Your task to perform on an android device: turn on location history Image 0: 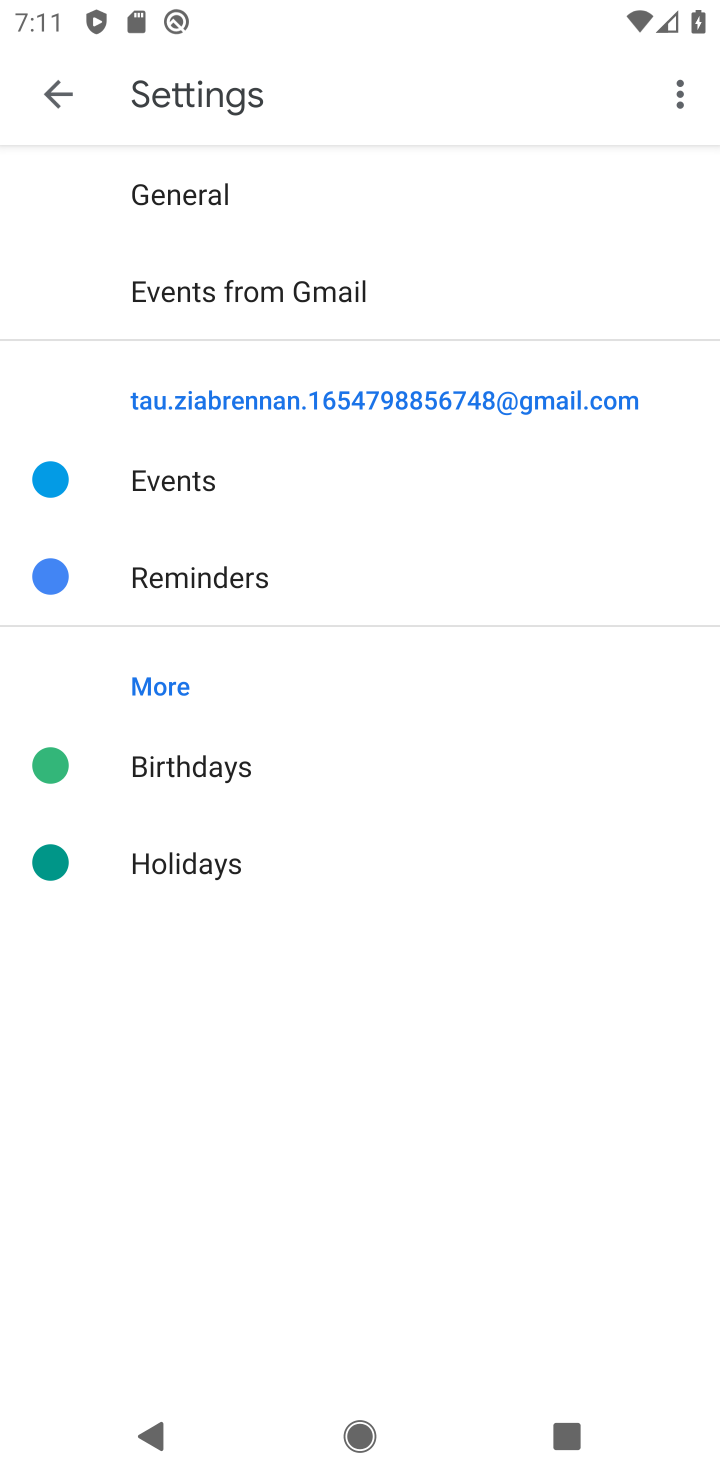
Step 0: press home button
Your task to perform on an android device: turn on location history Image 1: 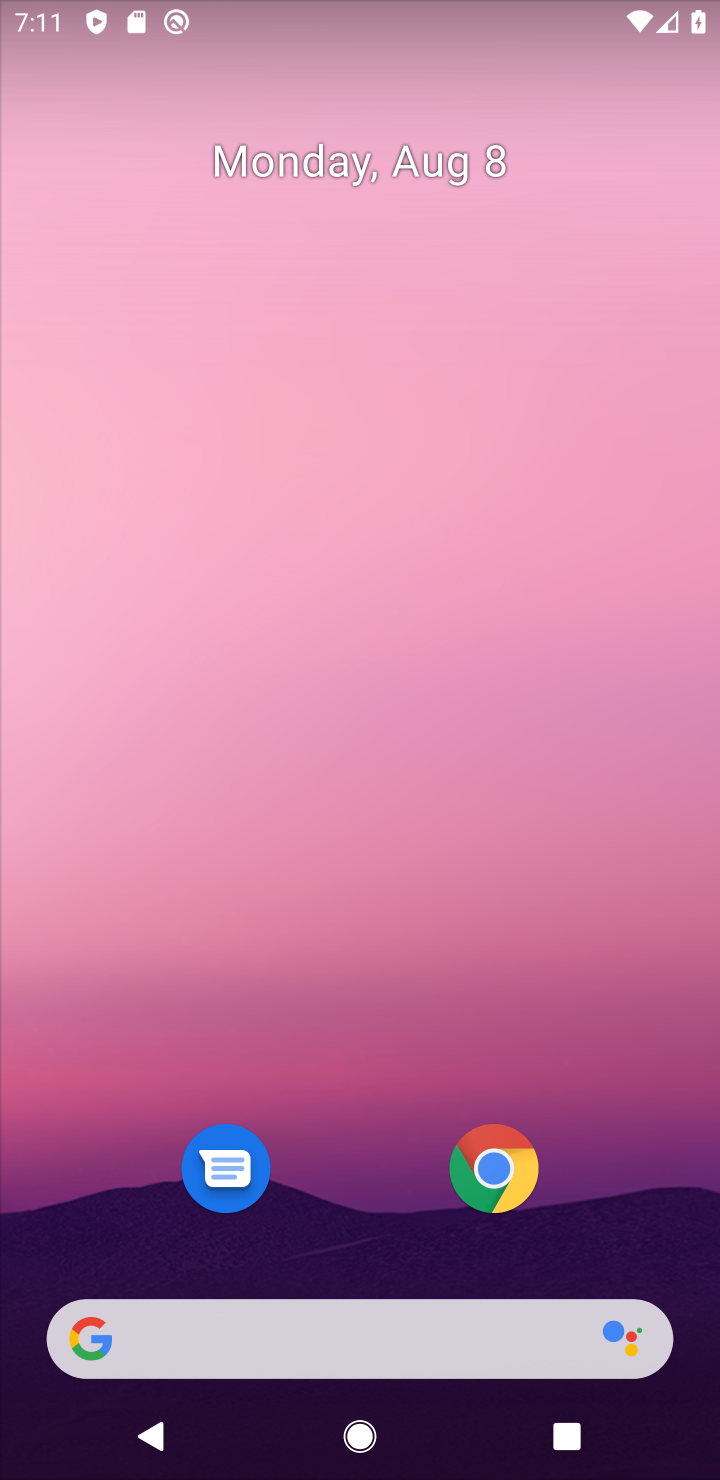
Step 1: drag from (644, 1263) to (480, 24)
Your task to perform on an android device: turn on location history Image 2: 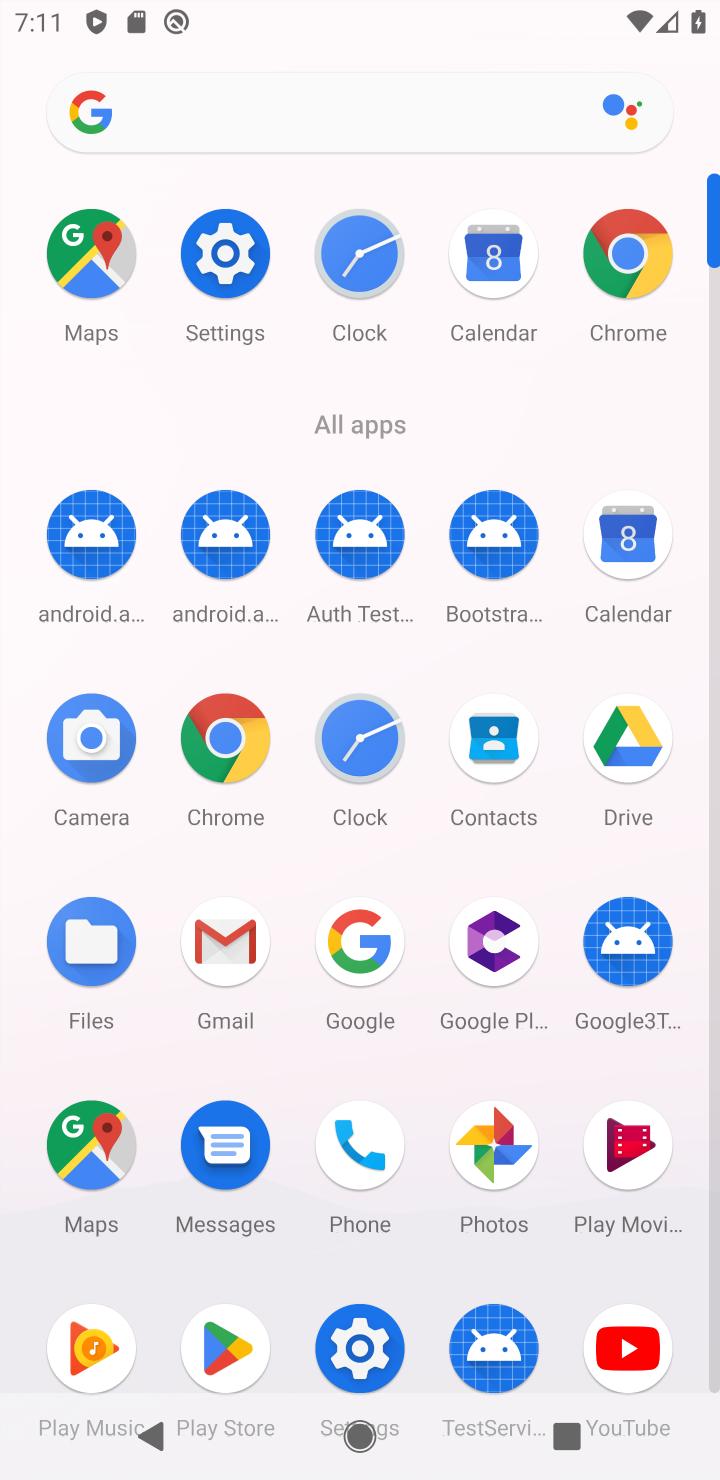
Step 2: click (347, 1334)
Your task to perform on an android device: turn on location history Image 3: 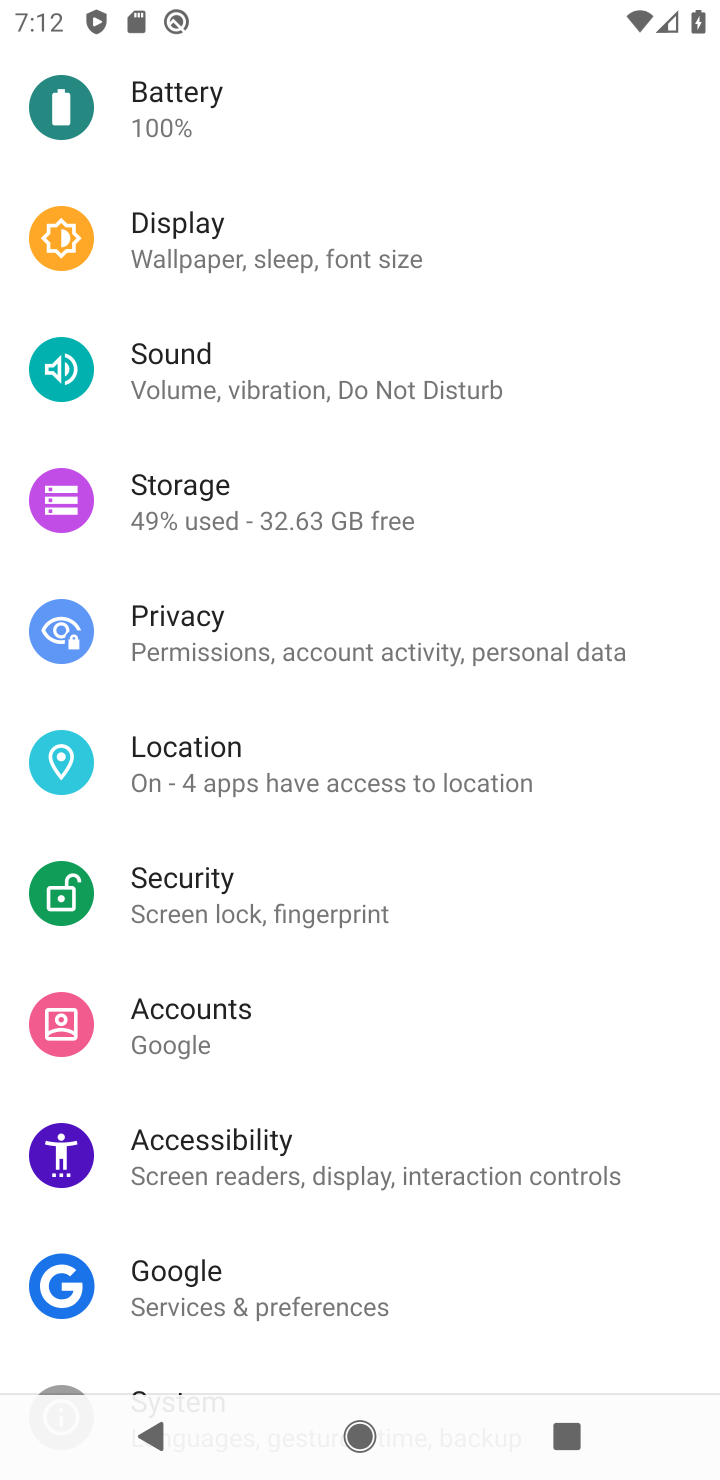
Step 3: click (221, 799)
Your task to perform on an android device: turn on location history Image 4: 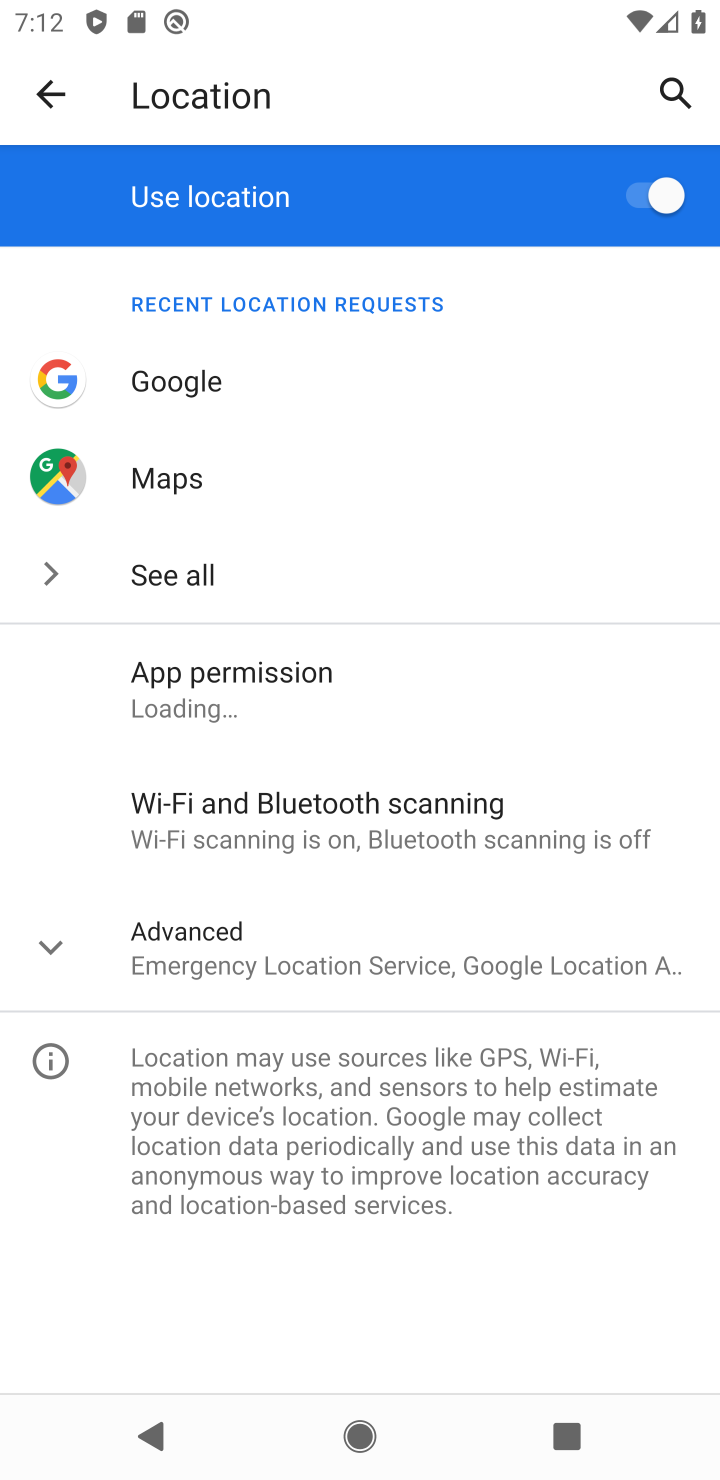
Step 4: click (180, 948)
Your task to perform on an android device: turn on location history Image 5: 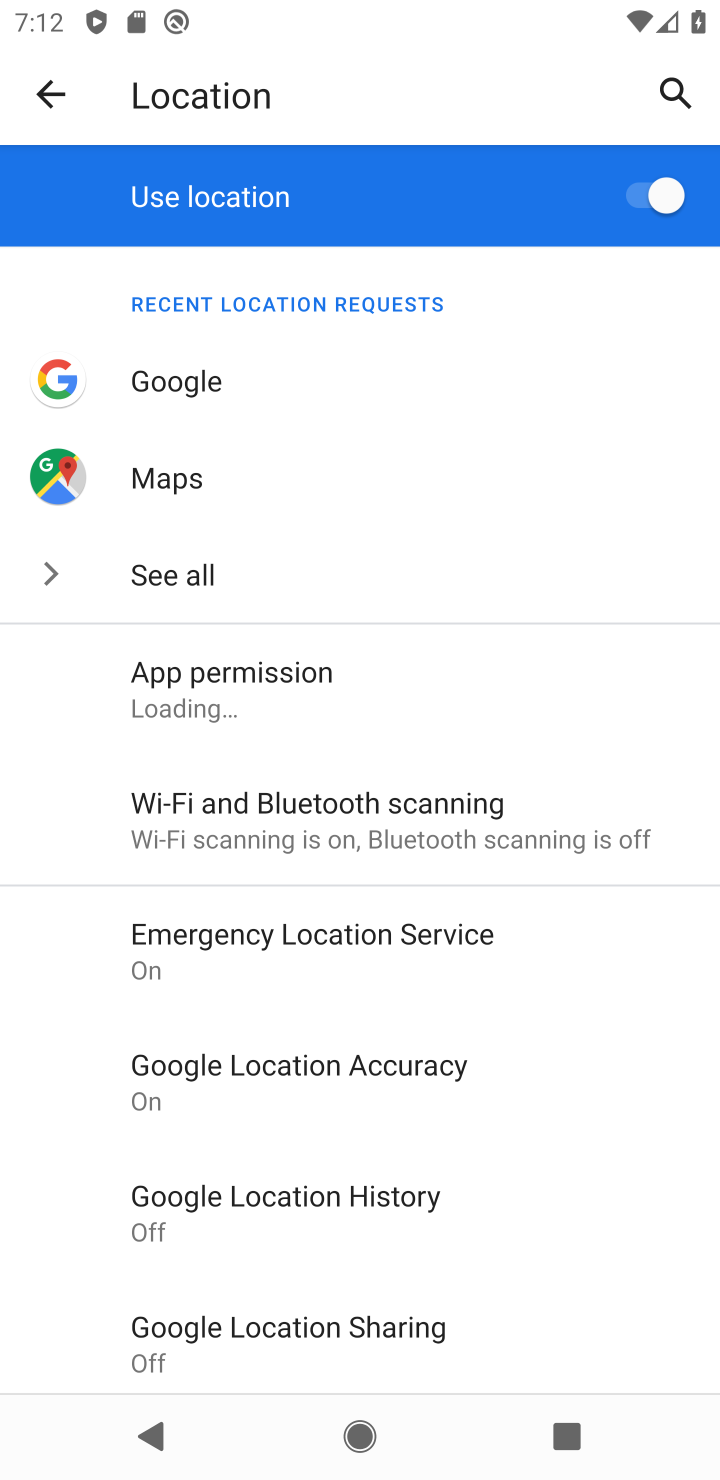
Step 5: click (326, 1196)
Your task to perform on an android device: turn on location history Image 6: 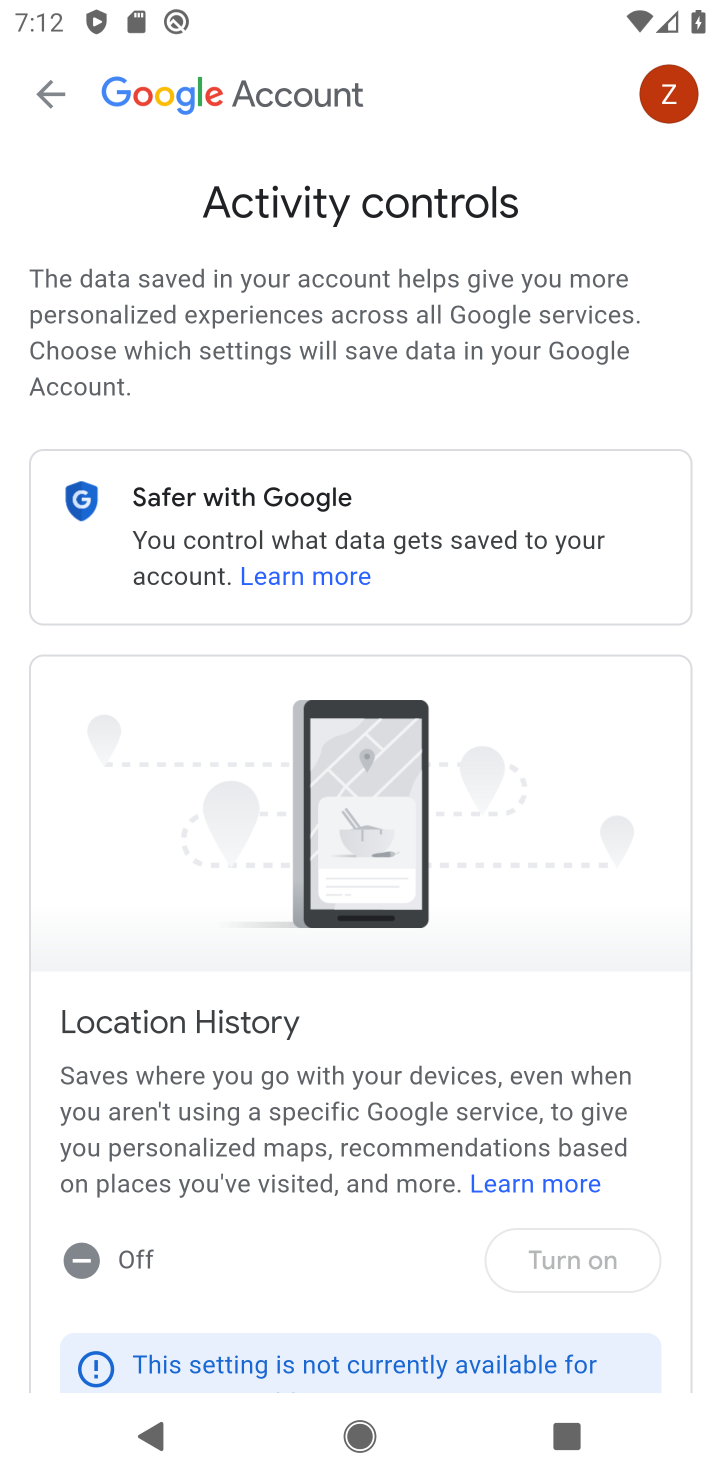
Step 6: task complete